Your task to perform on an android device: change keyboard looks Image 0: 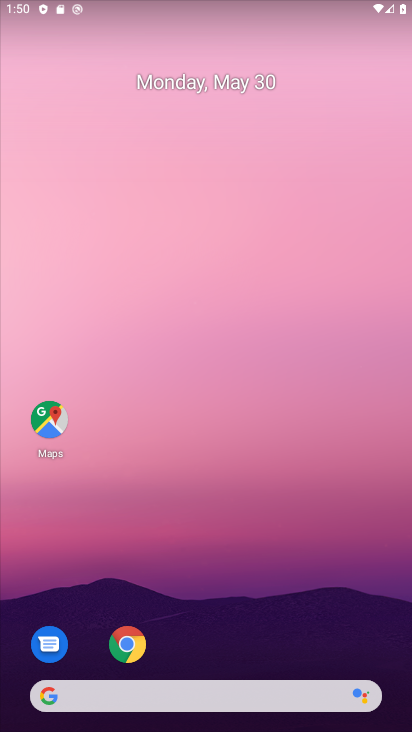
Step 0: press home button
Your task to perform on an android device: change keyboard looks Image 1: 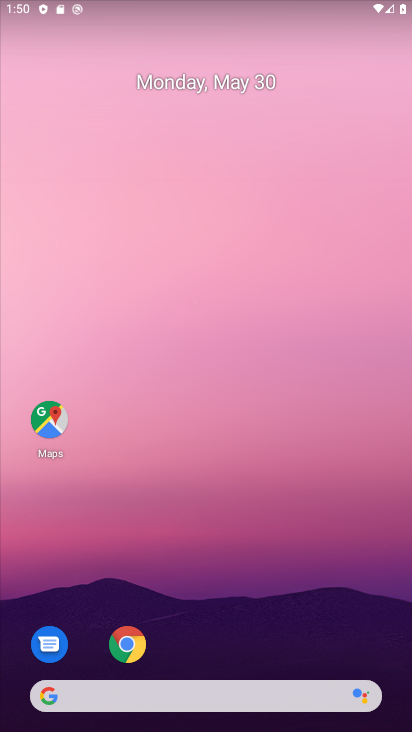
Step 1: drag from (337, 605) to (382, 145)
Your task to perform on an android device: change keyboard looks Image 2: 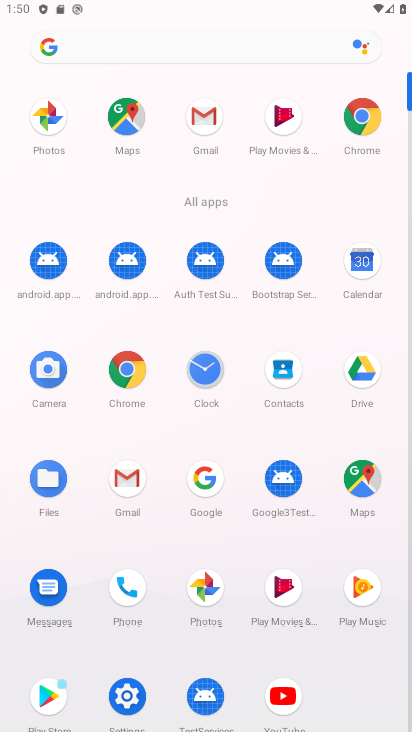
Step 2: click (122, 697)
Your task to perform on an android device: change keyboard looks Image 3: 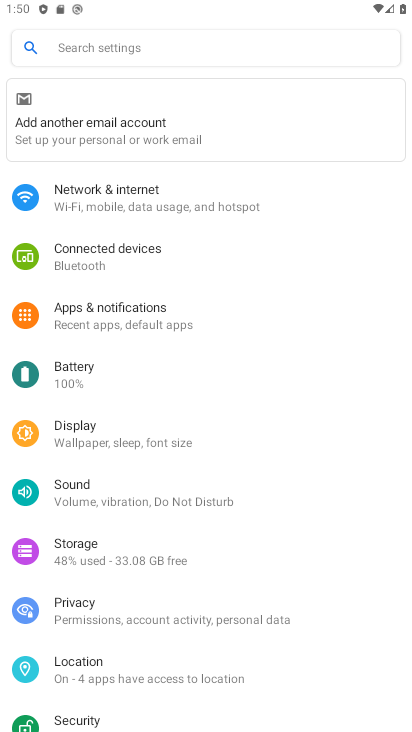
Step 3: drag from (303, 688) to (298, 415)
Your task to perform on an android device: change keyboard looks Image 4: 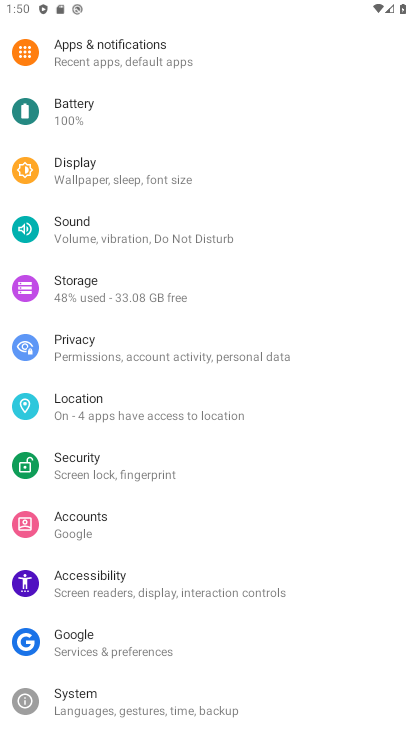
Step 4: click (162, 714)
Your task to perform on an android device: change keyboard looks Image 5: 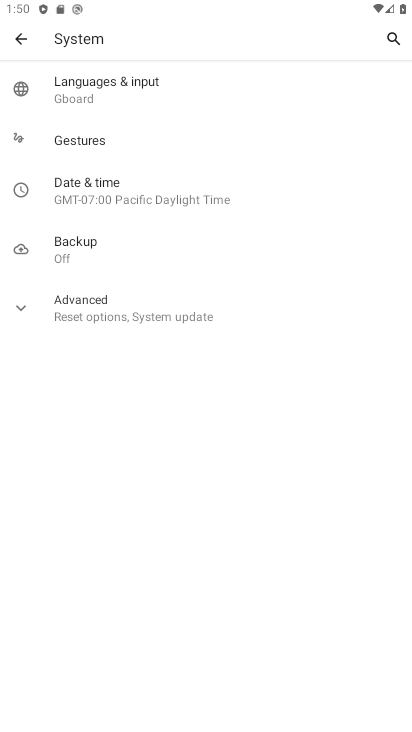
Step 5: click (121, 96)
Your task to perform on an android device: change keyboard looks Image 6: 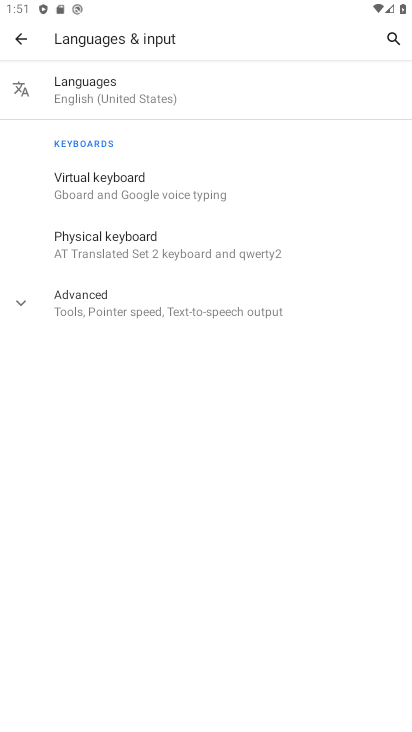
Step 6: click (95, 184)
Your task to perform on an android device: change keyboard looks Image 7: 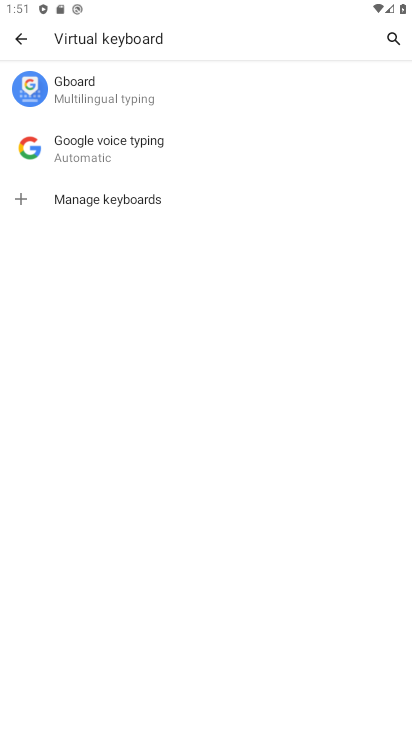
Step 7: click (69, 89)
Your task to perform on an android device: change keyboard looks Image 8: 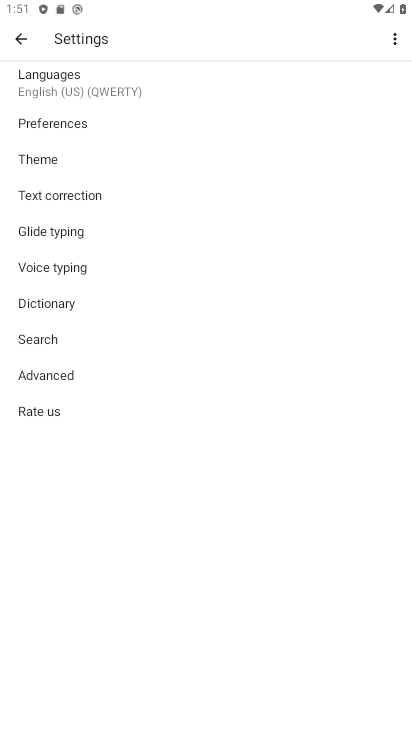
Step 8: click (51, 157)
Your task to perform on an android device: change keyboard looks Image 9: 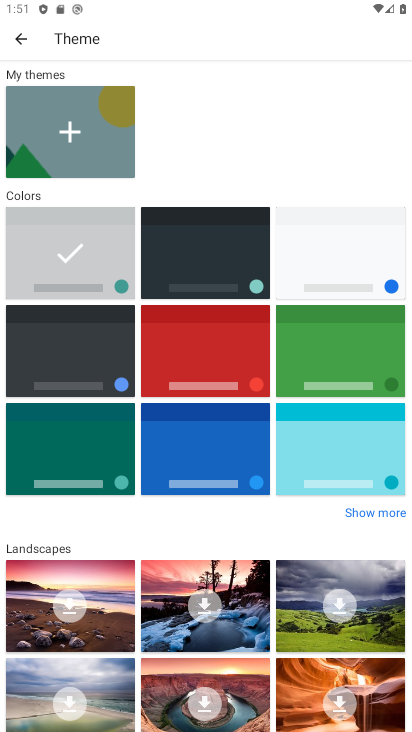
Step 9: click (330, 463)
Your task to perform on an android device: change keyboard looks Image 10: 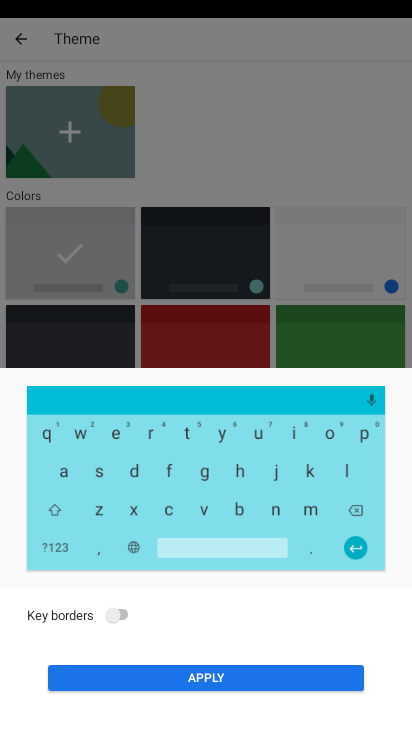
Step 10: click (177, 682)
Your task to perform on an android device: change keyboard looks Image 11: 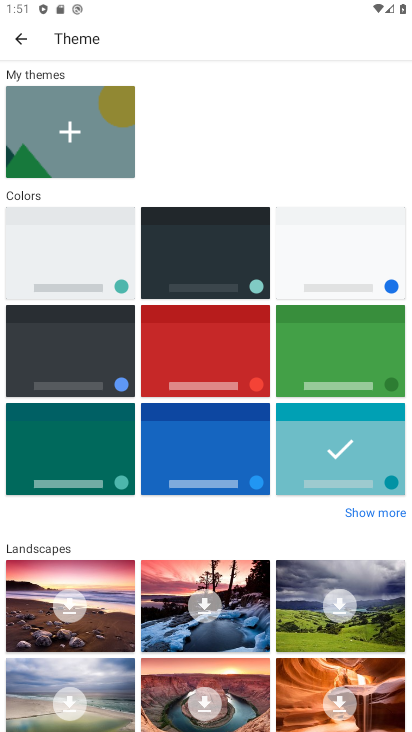
Step 11: task complete